Your task to perform on an android device: Toggle the flashlight Image 0: 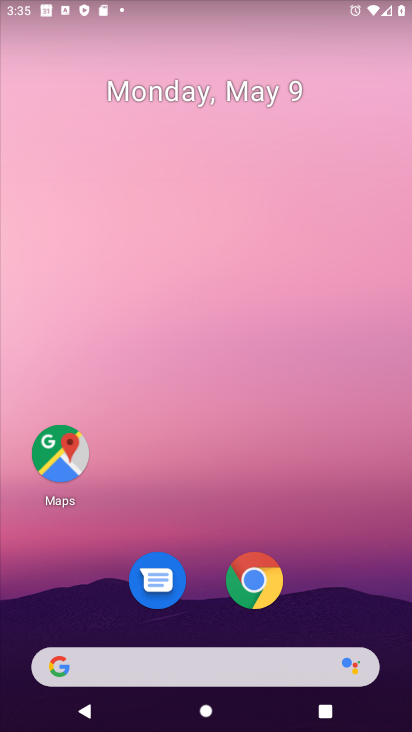
Step 0: drag from (233, 88) to (244, 557)
Your task to perform on an android device: Toggle the flashlight Image 1: 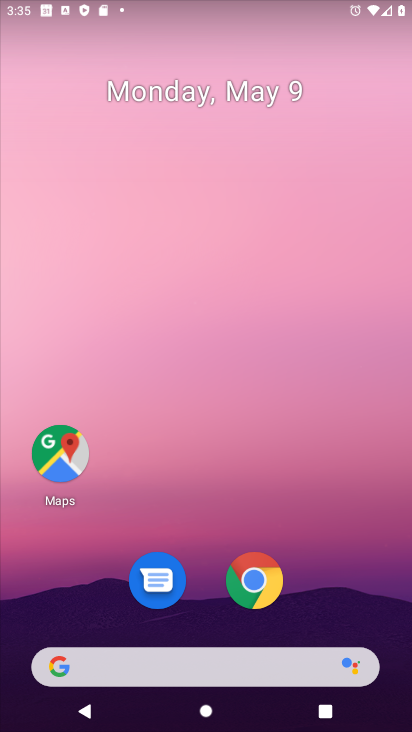
Step 1: click (246, 463)
Your task to perform on an android device: Toggle the flashlight Image 2: 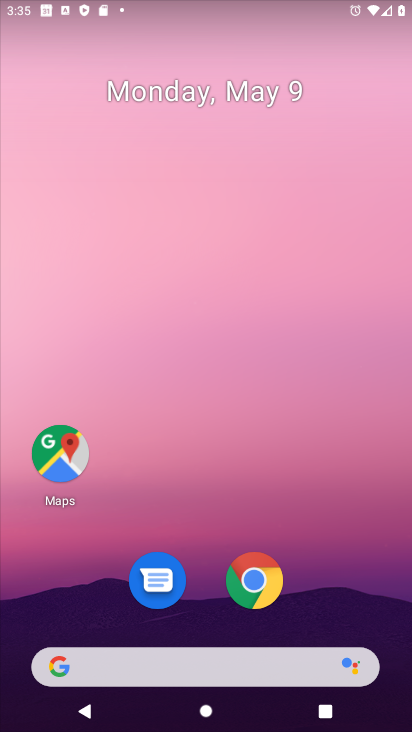
Step 2: task complete